Your task to perform on an android device: open chrome and create a bookmark for the current page Image 0: 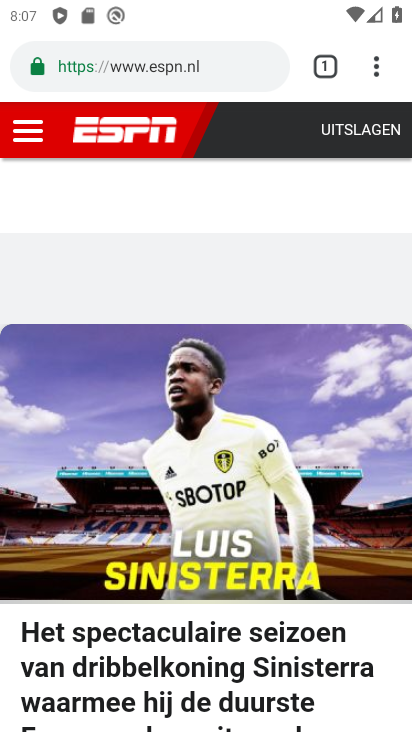
Step 0: press home button
Your task to perform on an android device: open chrome and create a bookmark for the current page Image 1: 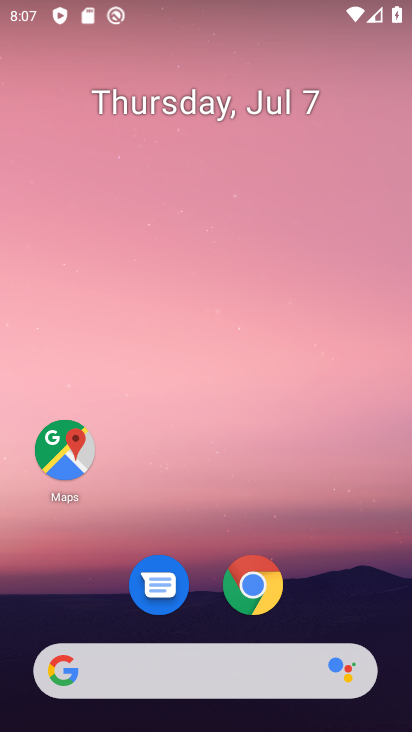
Step 1: click (273, 565)
Your task to perform on an android device: open chrome and create a bookmark for the current page Image 2: 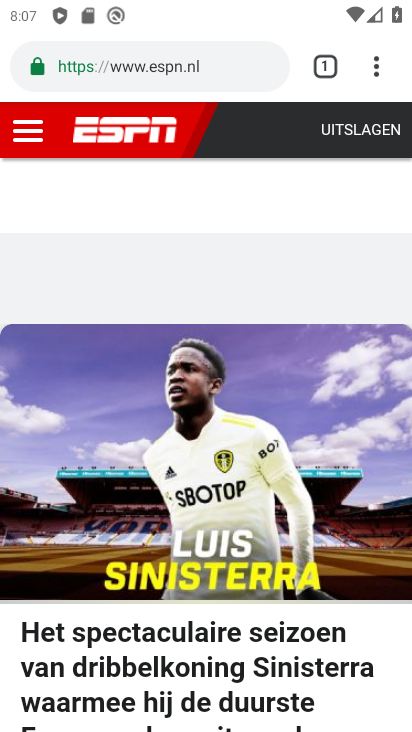
Step 2: click (372, 67)
Your task to perform on an android device: open chrome and create a bookmark for the current page Image 3: 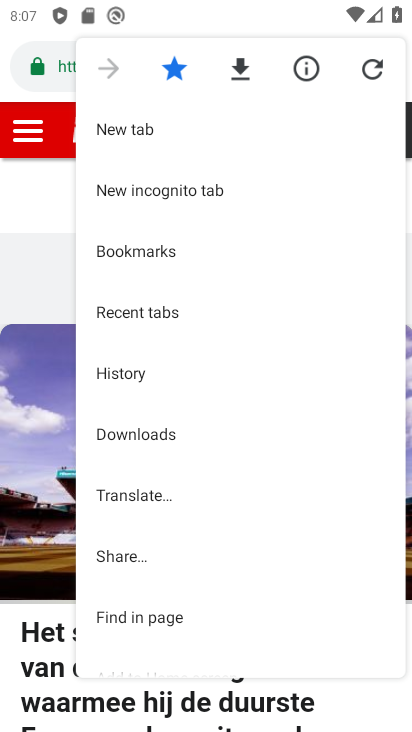
Step 3: task complete